Your task to perform on an android device: turn on the 24-hour format for clock Image 0: 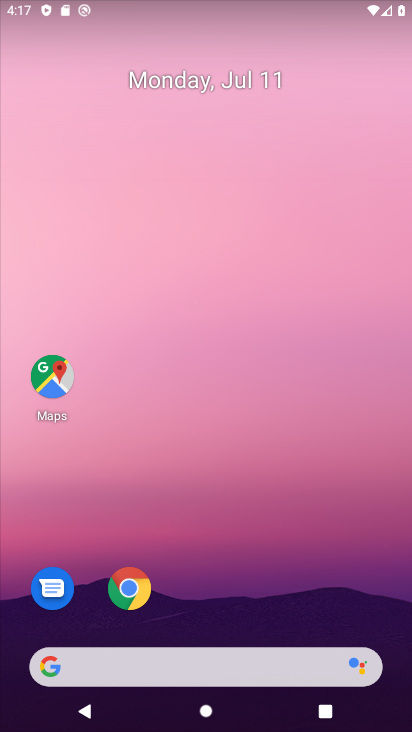
Step 0: drag from (82, 610) to (288, 132)
Your task to perform on an android device: turn on the 24-hour format for clock Image 1: 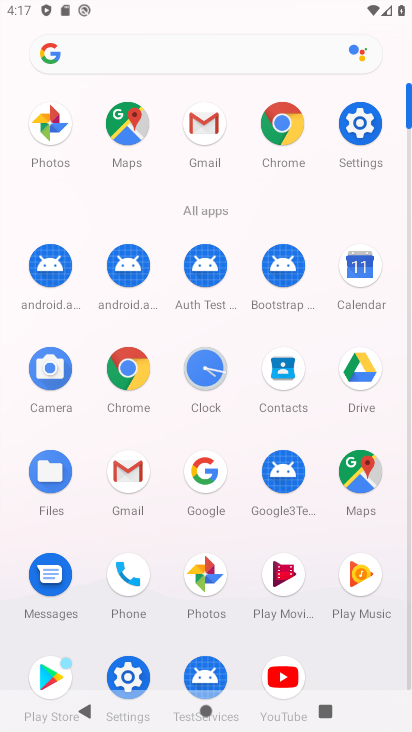
Step 1: click (216, 369)
Your task to perform on an android device: turn on the 24-hour format for clock Image 2: 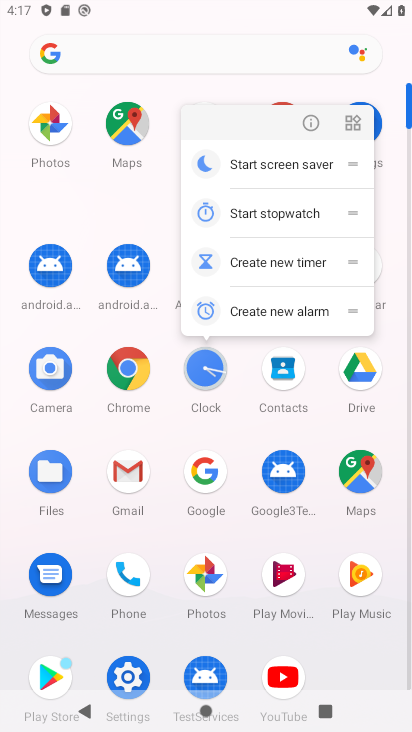
Step 2: click (200, 377)
Your task to perform on an android device: turn on the 24-hour format for clock Image 3: 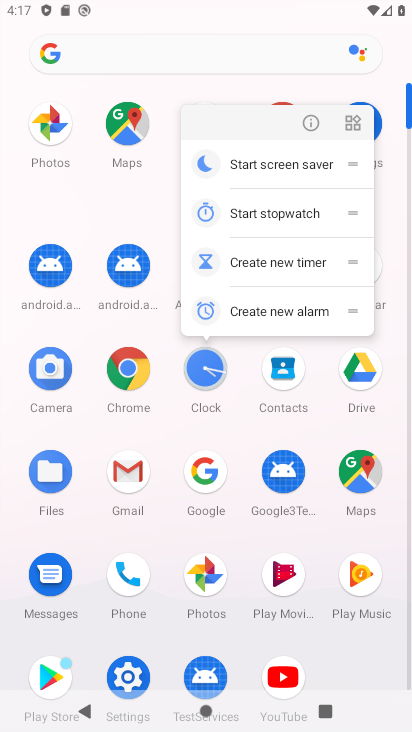
Step 3: click (200, 369)
Your task to perform on an android device: turn on the 24-hour format for clock Image 4: 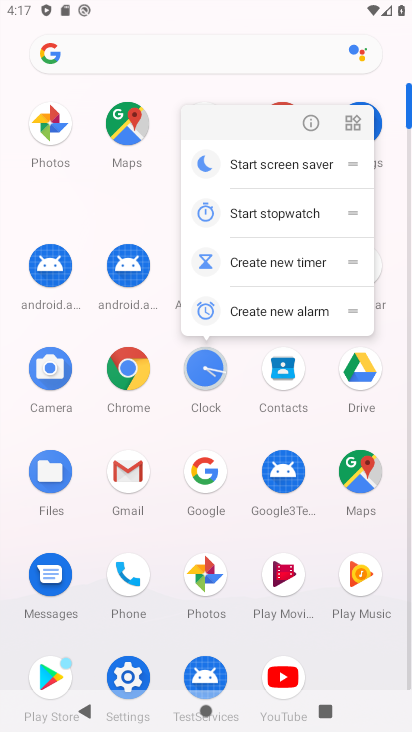
Step 4: click (198, 377)
Your task to perform on an android device: turn on the 24-hour format for clock Image 5: 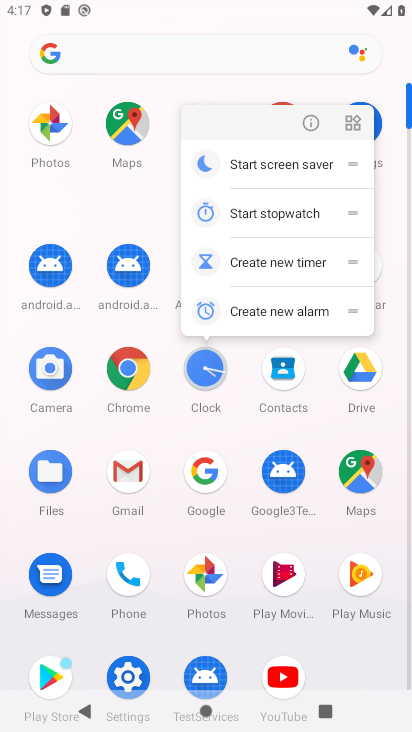
Step 5: click (198, 377)
Your task to perform on an android device: turn on the 24-hour format for clock Image 6: 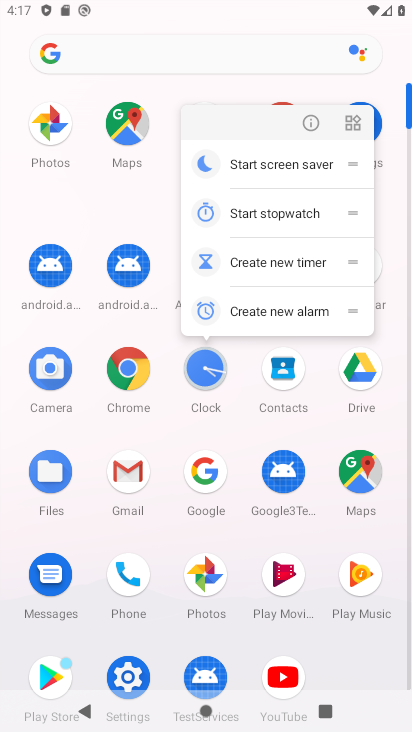
Step 6: click (196, 373)
Your task to perform on an android device: turn on the 24-hour format for clock Image 7: 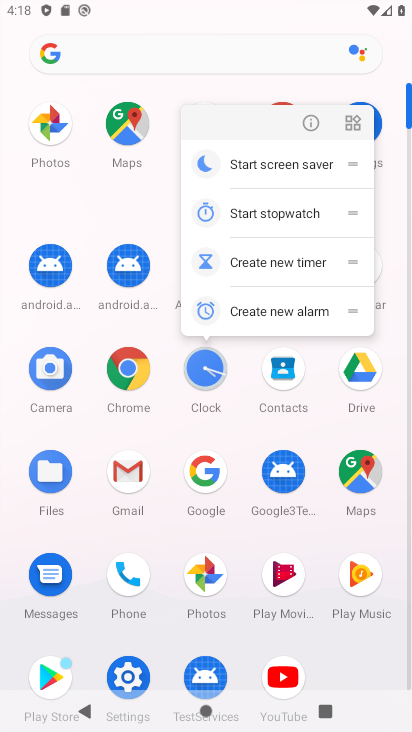
Step 7: task complete